Your task to perform on an android device: Go to wifi settings Image 0: 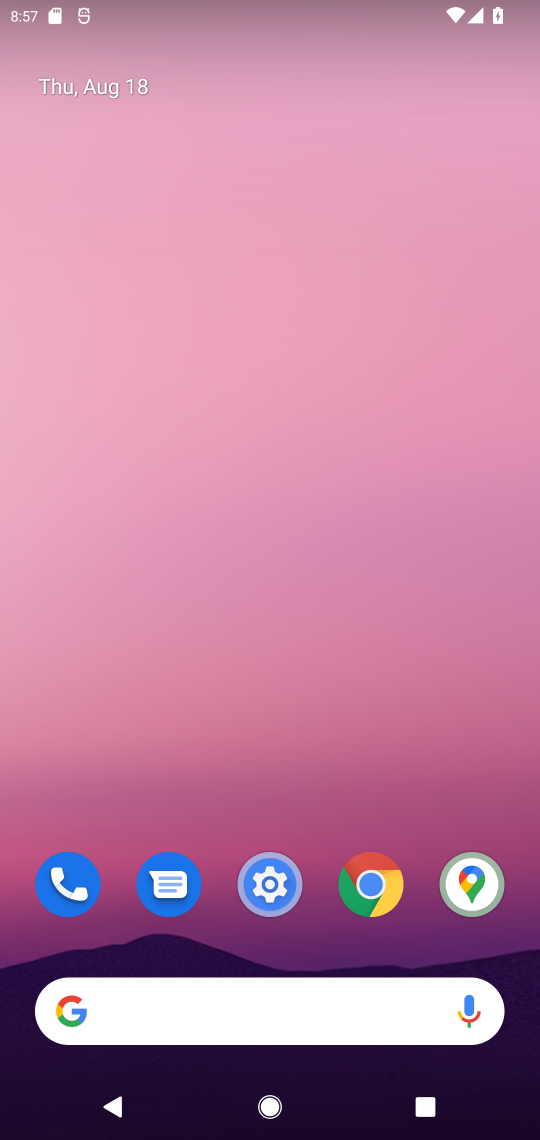
Step 0: drag from (152, 3) to (175, 961)
Your task to perform on an android device: Go to wifi settings Image 1: 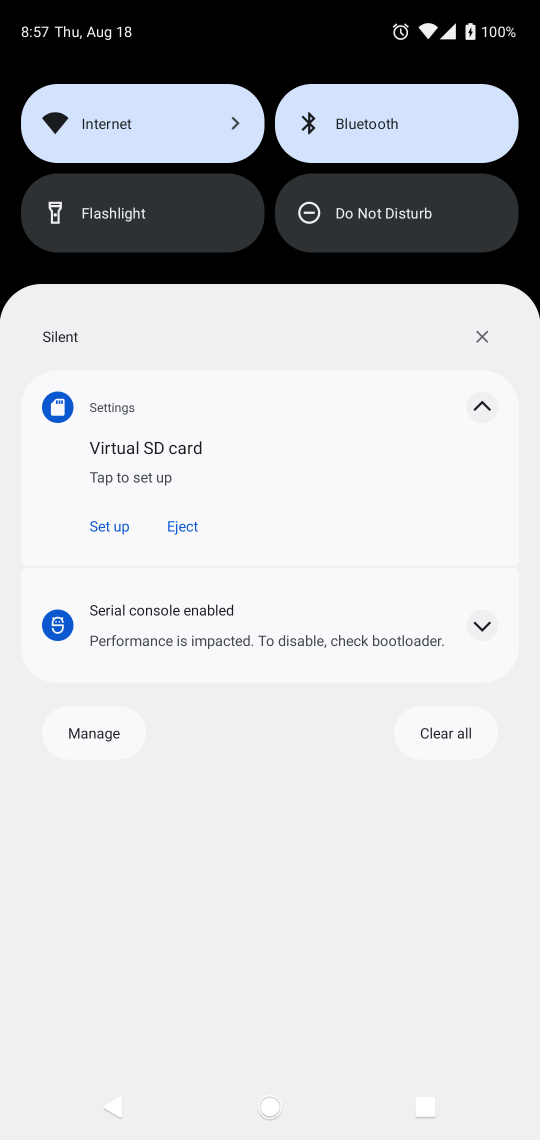
Step 1: click (235, 134)
Your task to perform on an android device: Go to wifi settings Image 2: 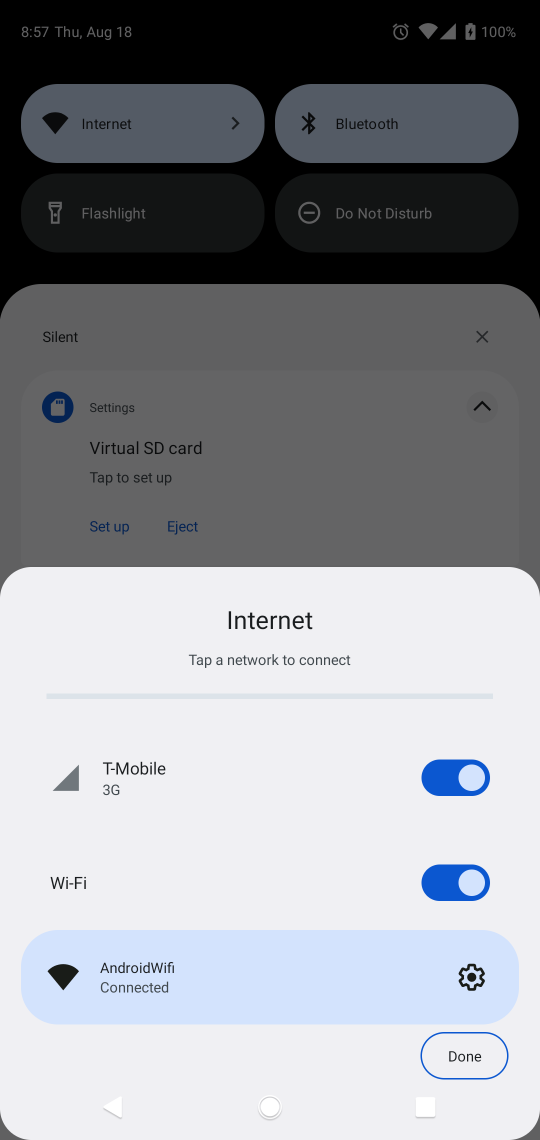
Step 2: click (471, 1063)
Your task to perform on an android device: Go to wifi settings Image 3: 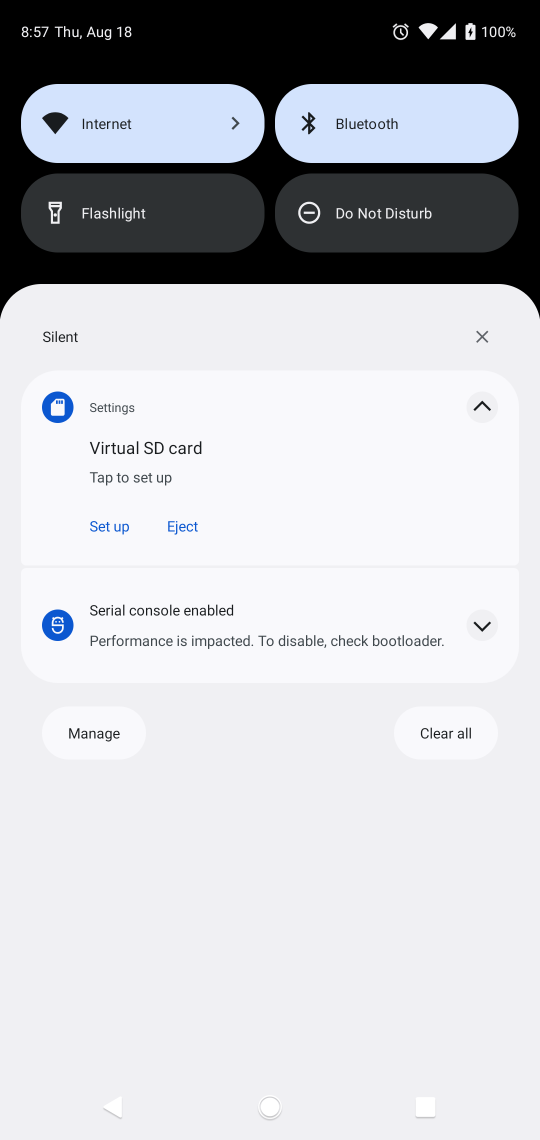
Step 3: click (231, 130)
Your task to perform on an android device: Go to wifi settings Image 4: 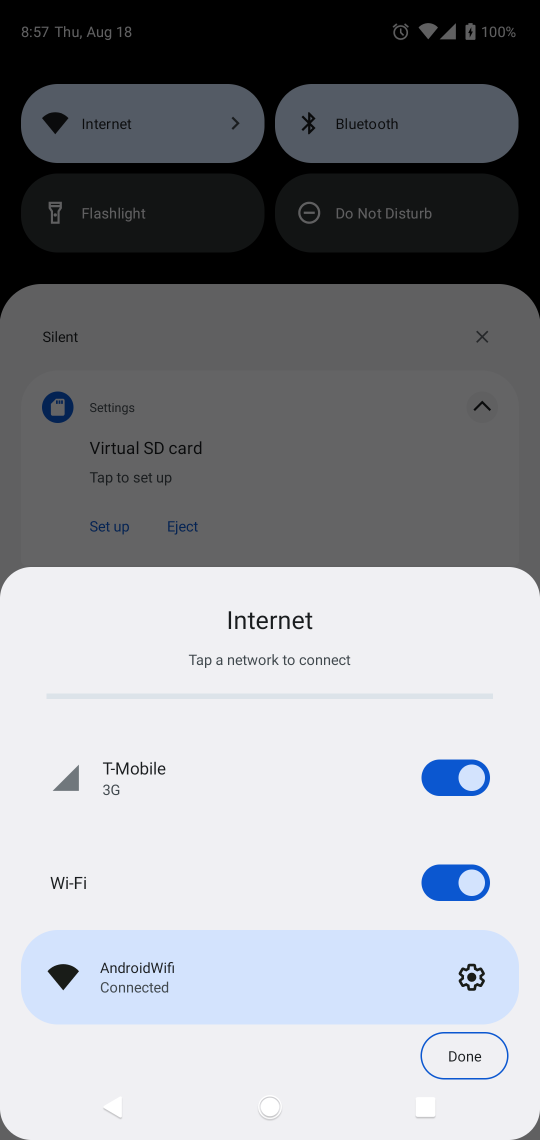
Step 4: click (462, 974)
Your task to perform on an android device: Go to wifi settings Image 5: 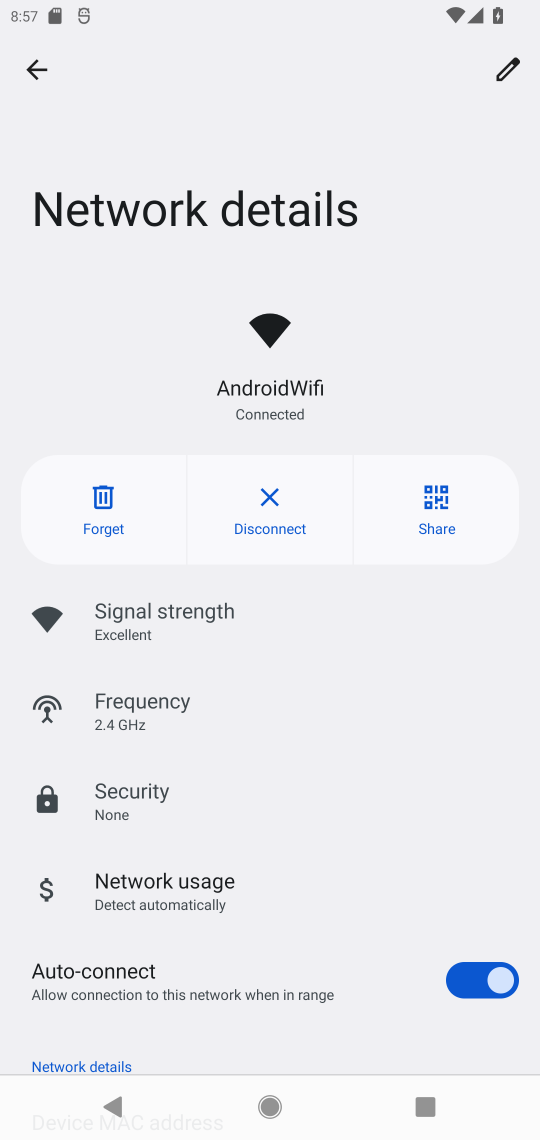
Step 5: task complete